Your task to perform on an android device: turn on wifi Image 0: 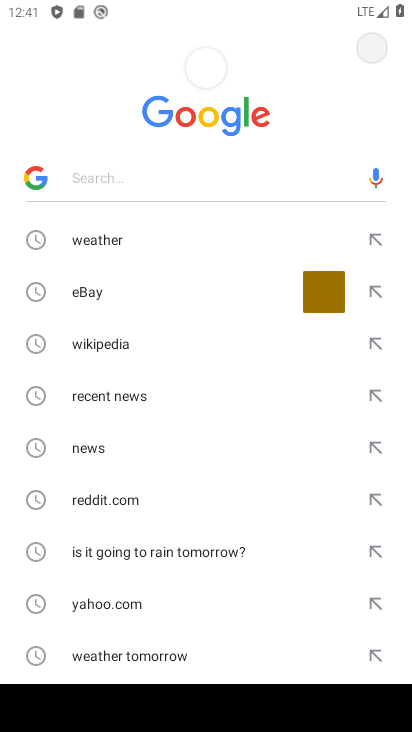
Step 0: press home button
Your task to perform on an android device: turn on wifi Image 1: 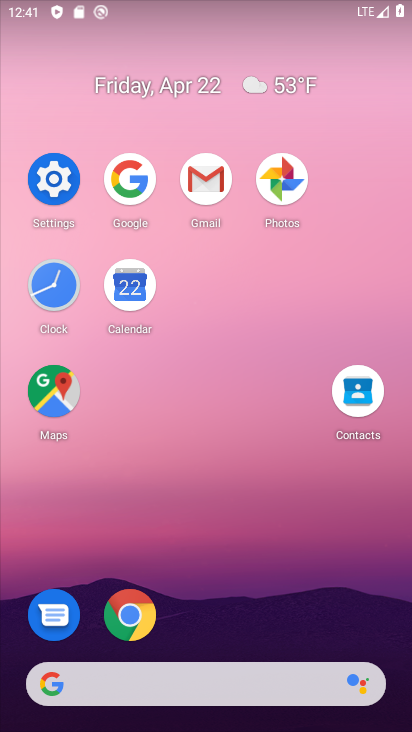
Step 1: click (64, 182)
Your task to perform on an android device: turn on wifi Image 2: 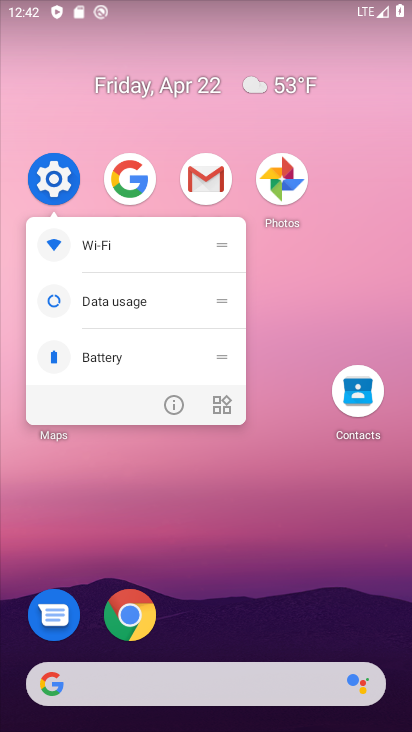
Step 2: click (104, 244)
Your task to perform on an android device: turn on wifi Image 3: 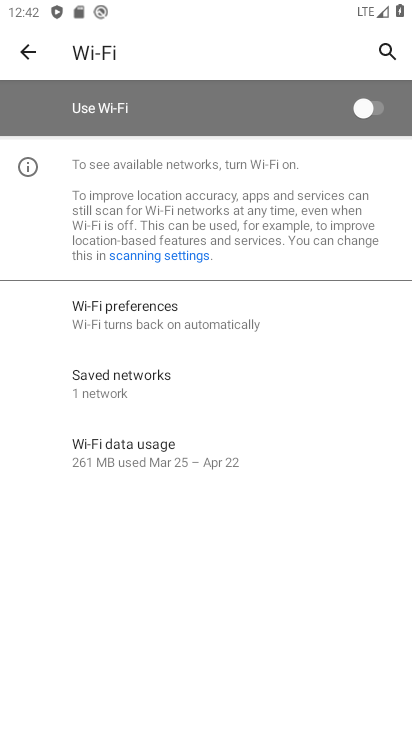
Step 3: click (367, 123)
Your task to perform on an android device: turn on wifi Image 4: 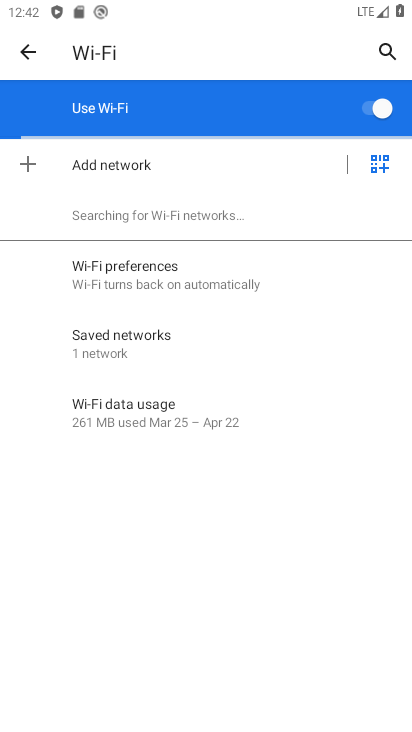
Step 4: task complete